Your task to perform on an android device: Open the stopwatch Image 0: 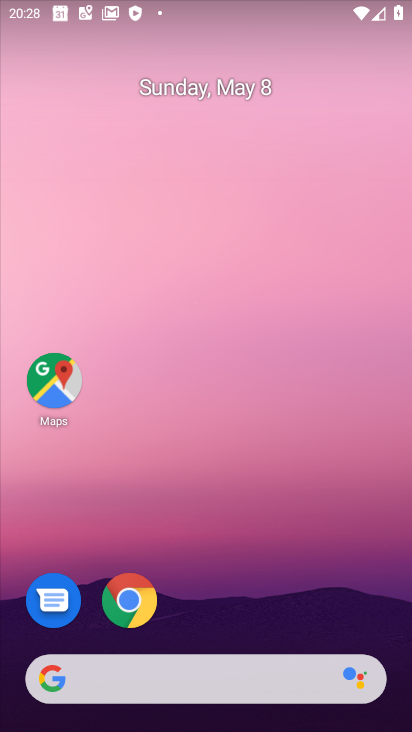
Step 0: drag from (229, 690) to (289, 269)
Your task to perform on an android device: Open the stopwatch Image 1: 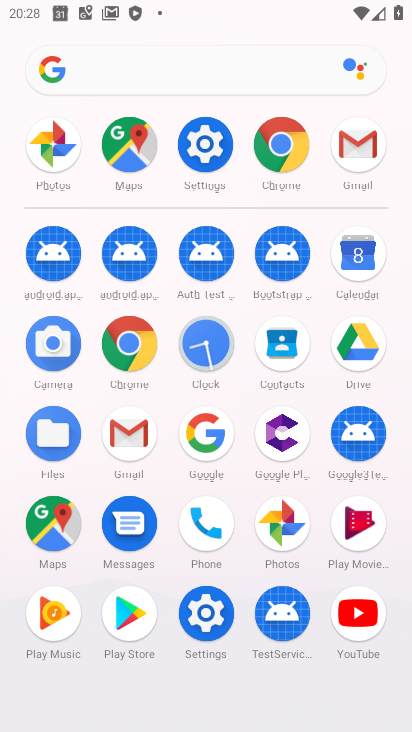
Step 1: click (211, 354)
Your task to perform on an android device: Open the stopwatch Image 2: 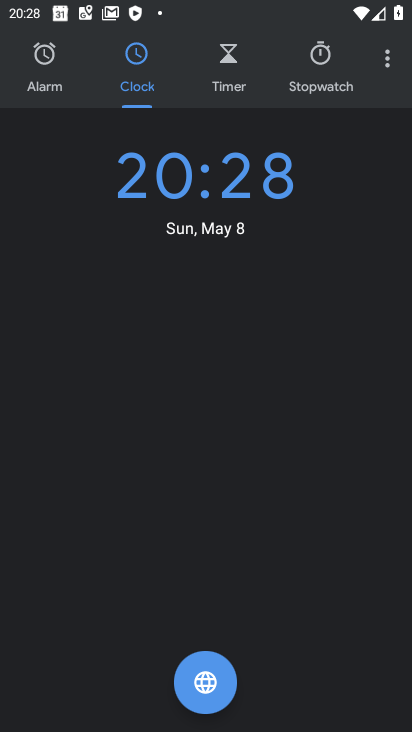
Step 2: click (315, 95)
Your task to perform on an android device: Open the stopwatch Image 3: 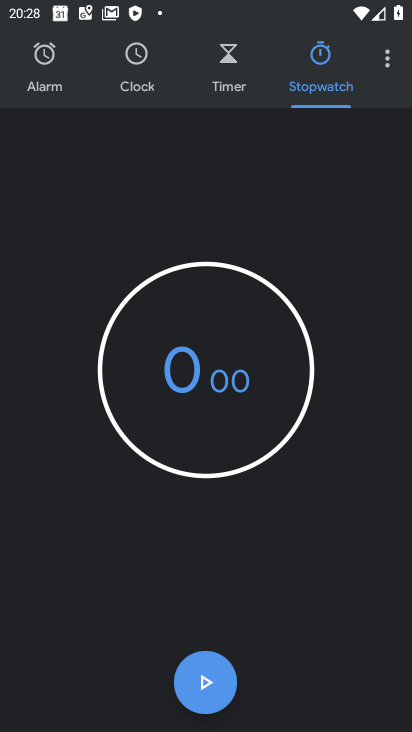
Step 3: task complete